Your task to perform on an android device: choose inbox layout in the gmail app Image 0: 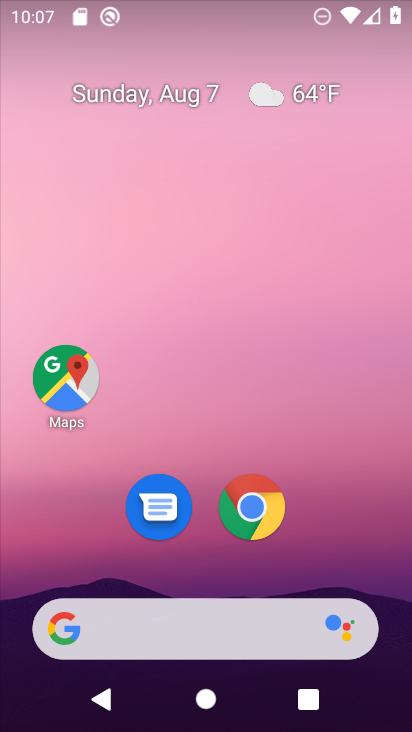
Step 0: drag from (379, 522) to (306, 41)
Your task to perform on an android device: choose inbox layout in the gmail app Image 1: 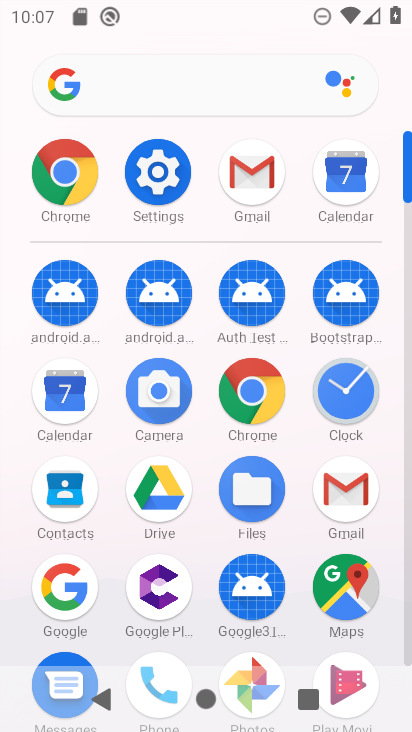
Step 1: click (342, 499)
Your task to perform on an android device: choose inbox layout in the gmail app Image 2: 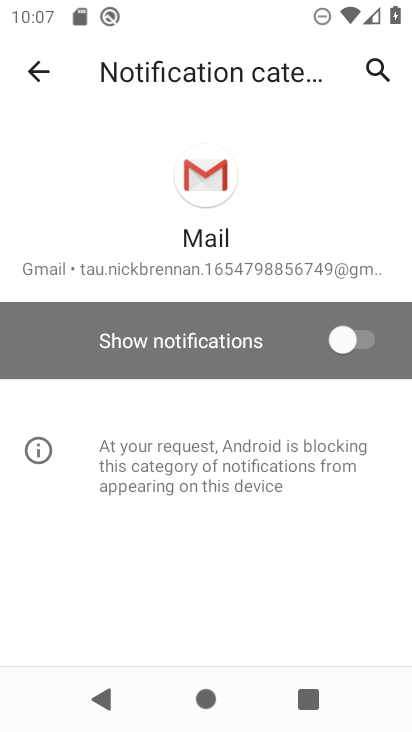
Step 2: click (25, 66)
Your task to perform on an android device: choose inbox layout in the gmail app Image 3: 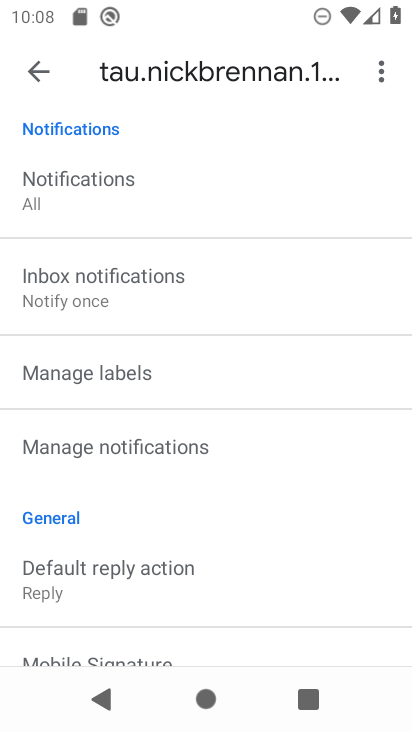
Step 3: drag from (198, 233) to (250, 710)
Your task to perform on an android device: choose inbox layout in the gmail app Image 4: 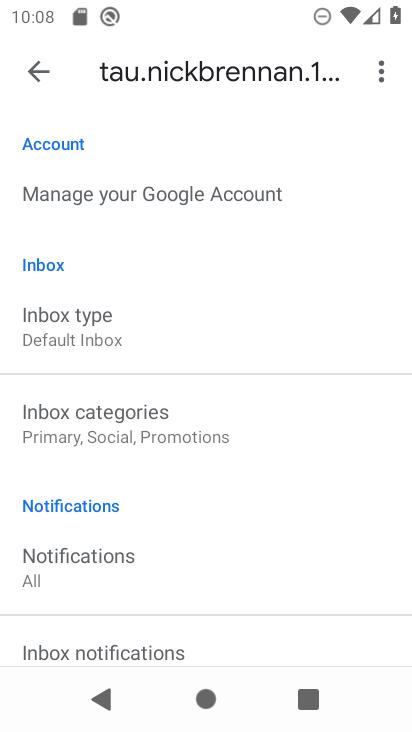
Step 4: click (98, 325)
Your task to perform on an android device: choose inbox layout in the gmail app Image 5: 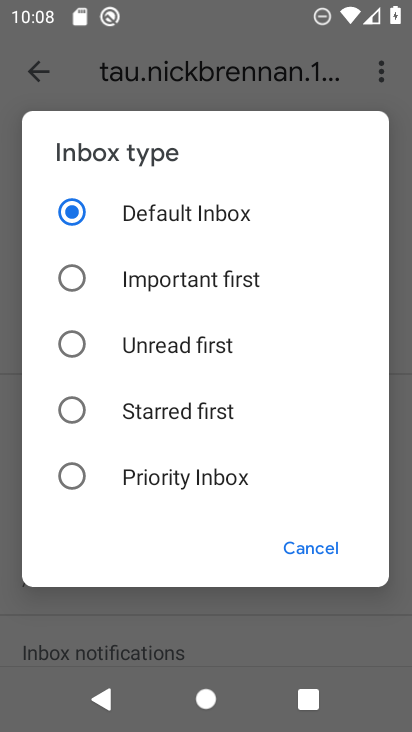
Step 5: task complete